Your task to perform on an android device: Is it going to rain this weekend? Image 0: 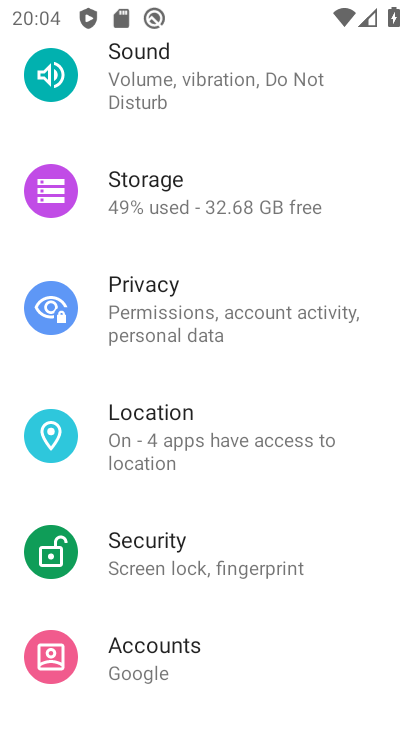
Step 0: press home button
Your task to perform on an android device: Is it going to rain this weekend? Image 1: 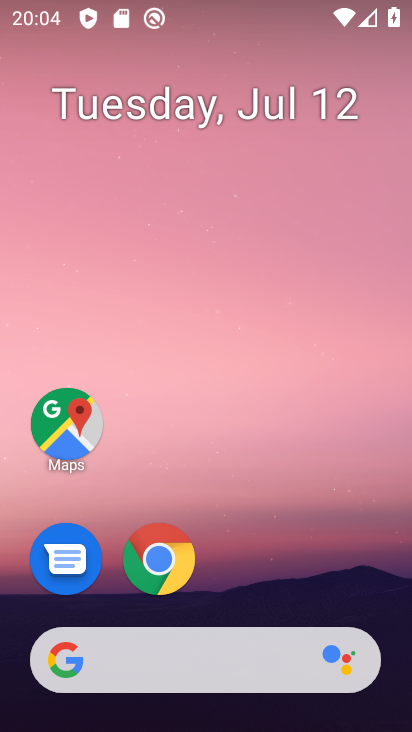
Step 1: click (217, 648)
Your task to perform on an android device: Is it going to rain this weekend? Image 2: 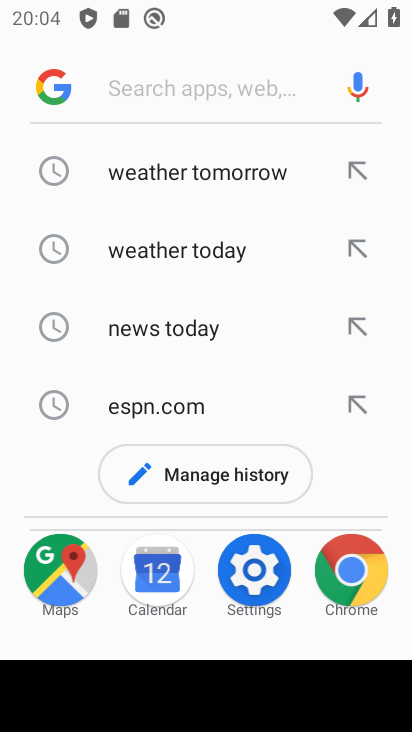
Step 2: type "weather"
Your task to perform on an android device: Is it going to rain this weekend? Image 3: 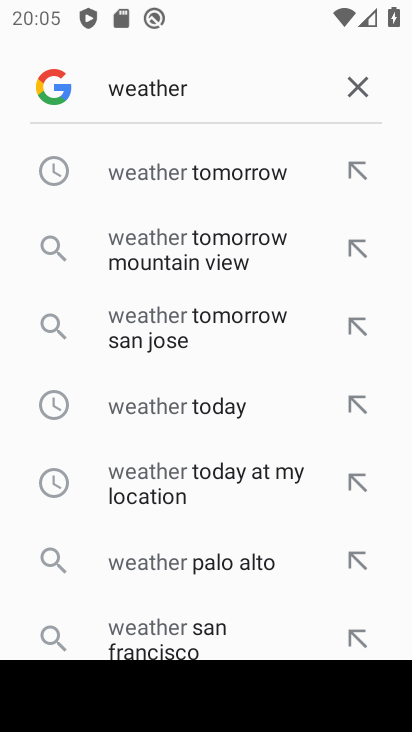
Step 3: click (252, 170)
Your task to perform on an android device: Is it going to rain this weekend? Image 4: 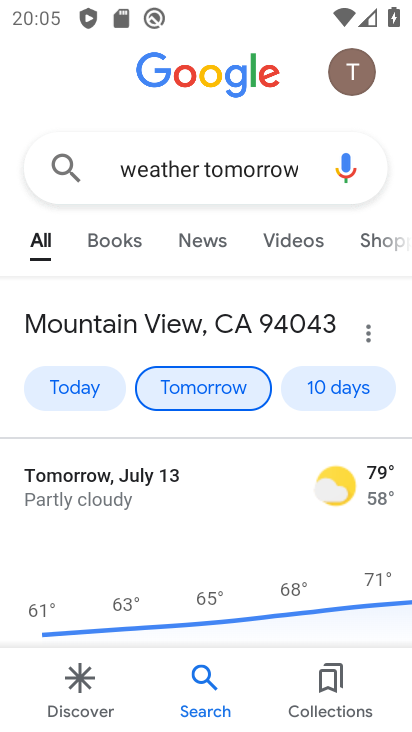
Step 4: click (334, 385)
Your task to perform on an android device: Is it going to rain this weekend? Image 5: 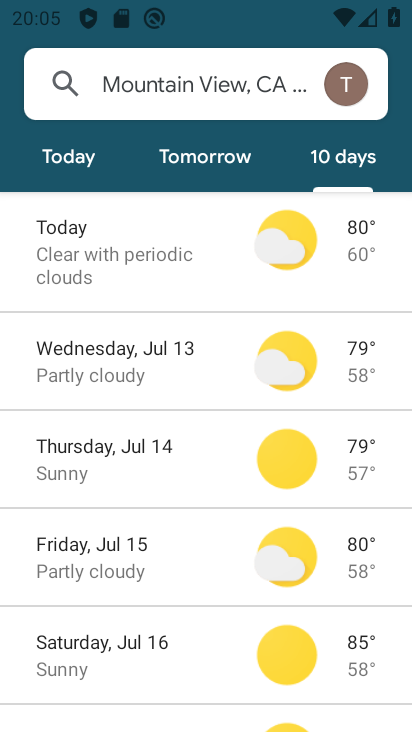
Step 5: drag from (218, 535) to (233, 320)
Your task to perform on an android device: Is it going to rain this weekend? Image 6: 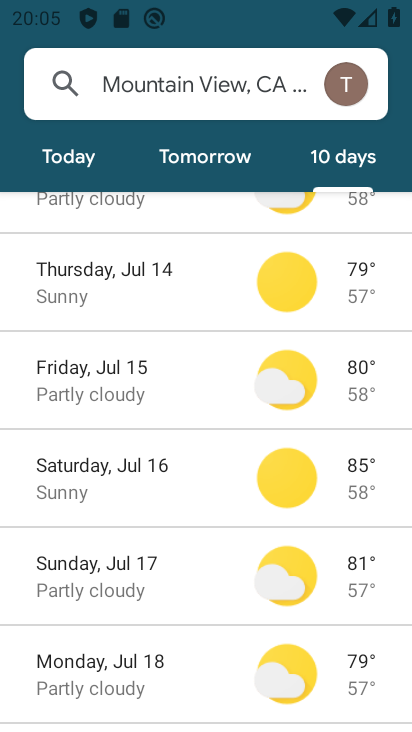
Step 6: click (162, 479)
Your task to perform on an android device: Is it going to rain this weekend? Image 7: 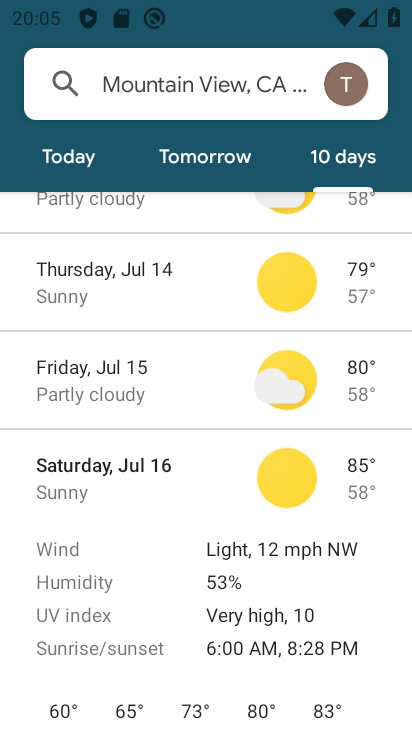
Step 7: task complete